Your task to perform on an android device: Go to sound settings Image 0: 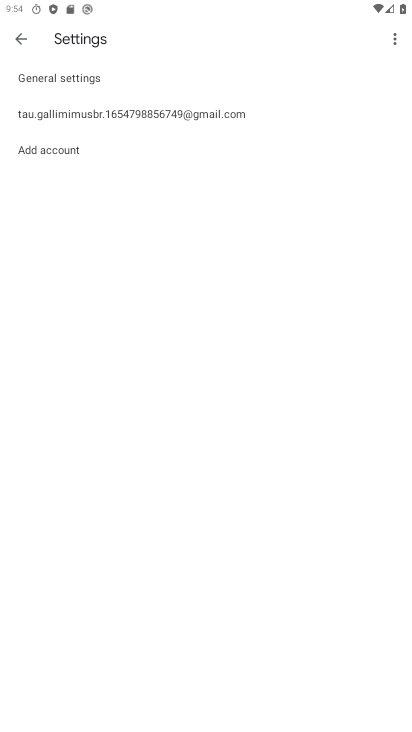
Step 0: press home button
Your task to perform on an android device: Go to sound settings Image 1: 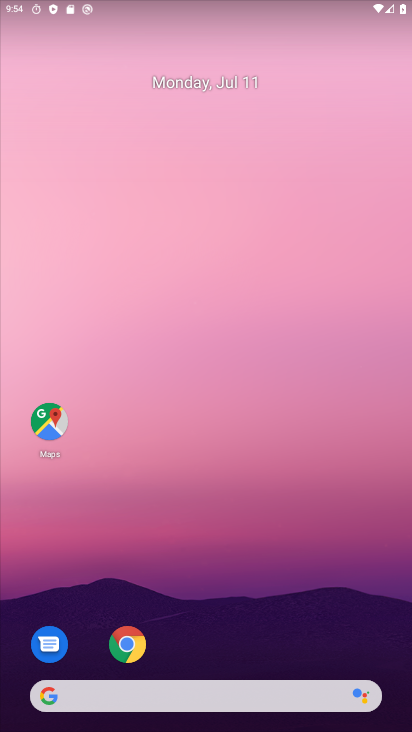
Step 1: drag from (316, 592) to (328, 0)
Your task to perform on an android device: Go to sound settings Image 2: 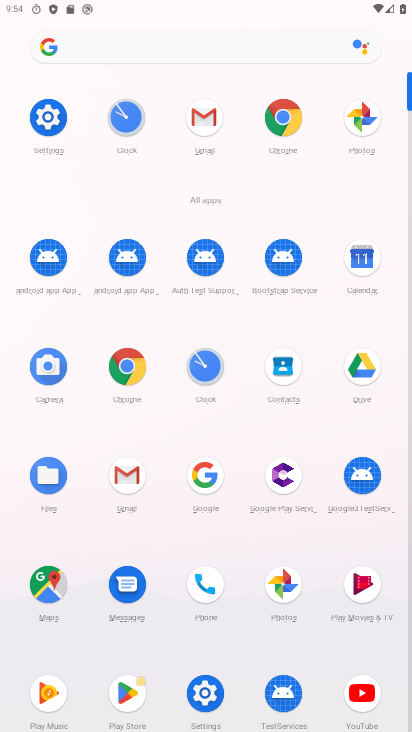
Step 2: click (53, 120)
Your task to perform on an android device: Go to sound settings Image 3: 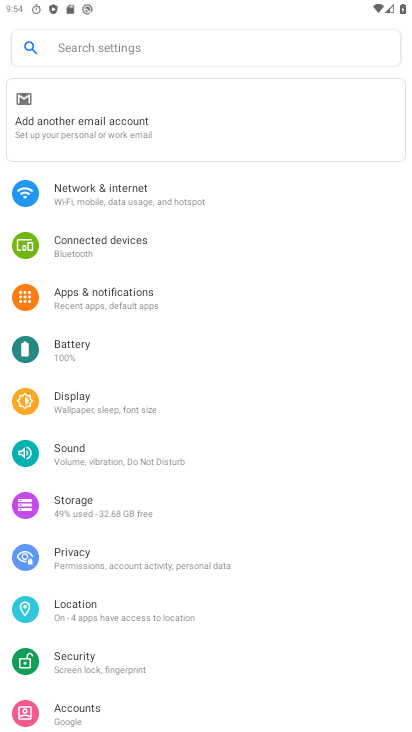
Step 3: click (88, 459)
Your task to perform on an android device: Go to sound settings Image 4: 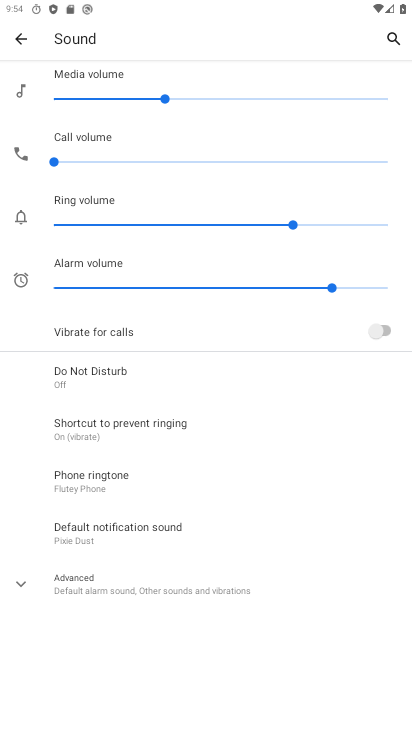
Step 4: task complete